Your task to perform on an android device: open a bookmark in the chrome app Image 0: 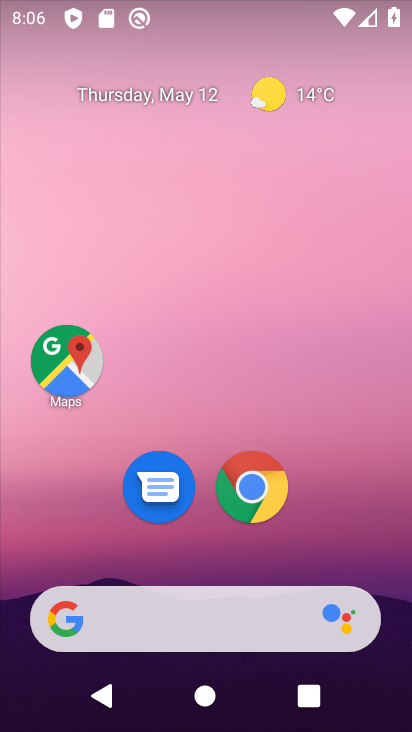
Step 0: click (260, 496)
Your task to perform on an android device: open a bookmark in the chrome app Image 1: 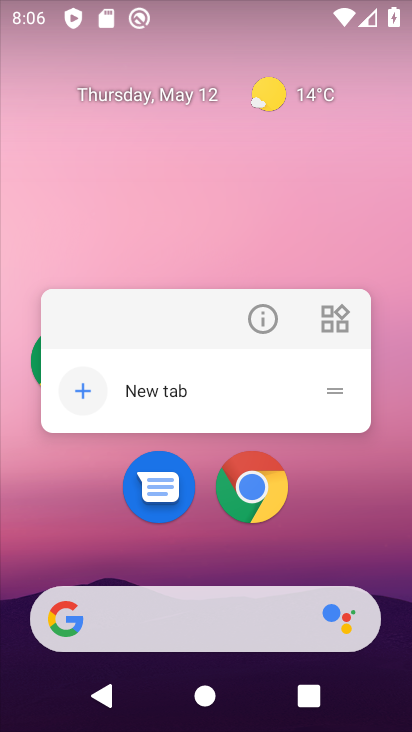
Step 1: click (257, 491)
Your task to perform on an android device: open a bookmark in the chrome app Image 2: 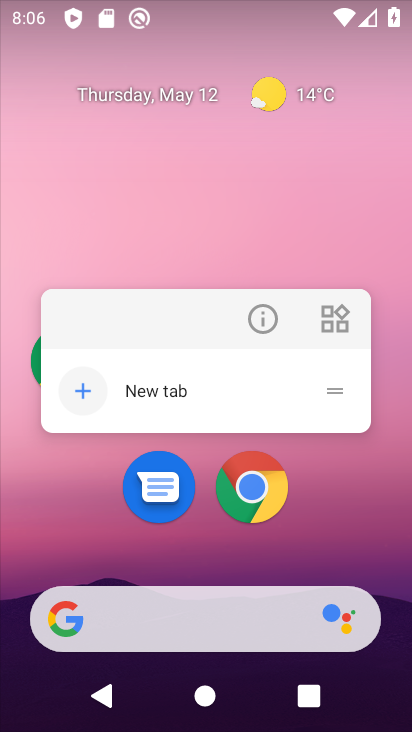
Step 2: click (378, 549)
Your task to perform on an android device: open a bookmark in the chrome app Image 3: 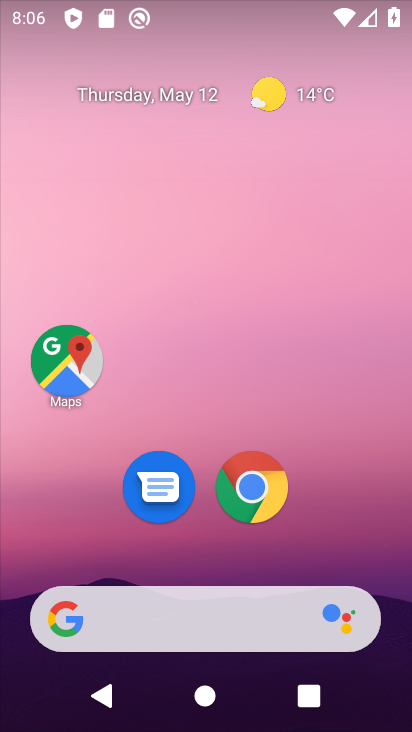
Step 3: click (255, 486)
Your task to perform on an android device: open a bookmark in the chrome app Image 4: 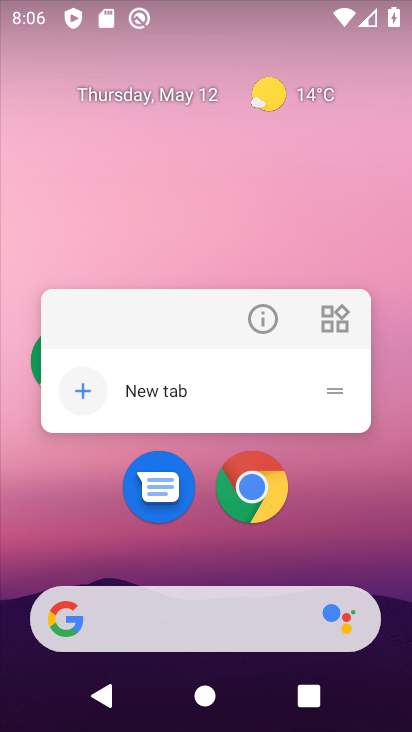
Step 4: click (254, 487)
Your task to perform on an android device: open a bookmark in the chrome app Image 5: 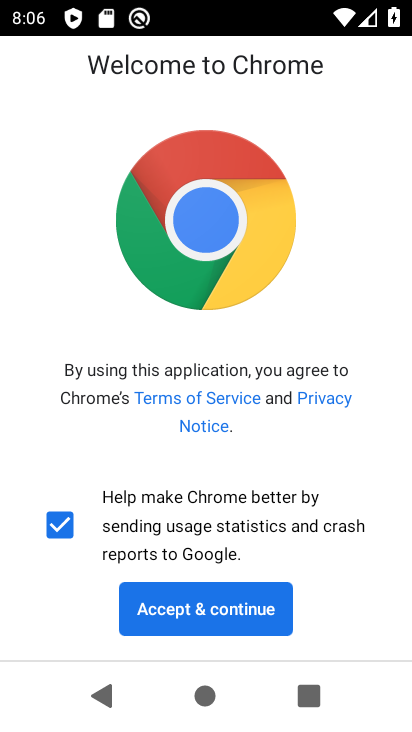
Step 5: click (164, 617)
Your task to perform on an android device: open a bookmark in the chrome app Image 6: 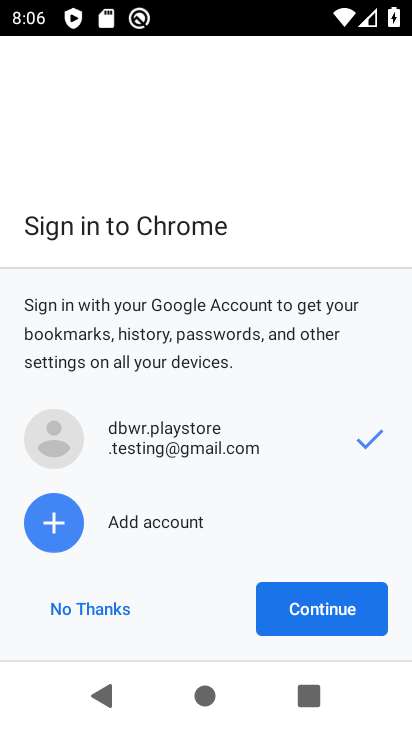
Step 6: click (81, 589)
Your task to perform on an android device: open a bookmark in the chrome app Image 7: 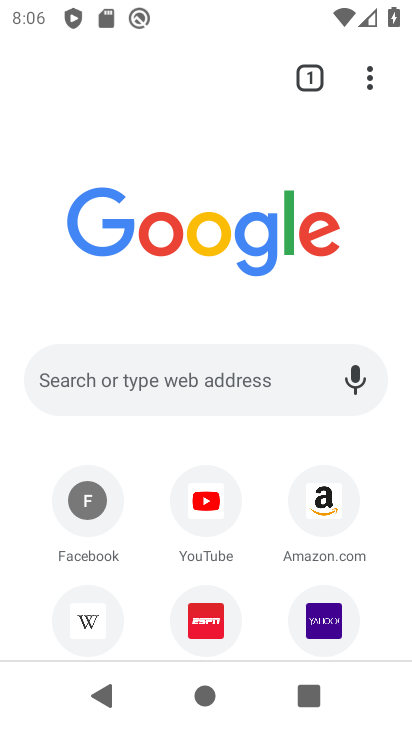
Step 7: click (370, 79)
Your task to perform on an android device: open a bookmark in the chrome app Image 8: 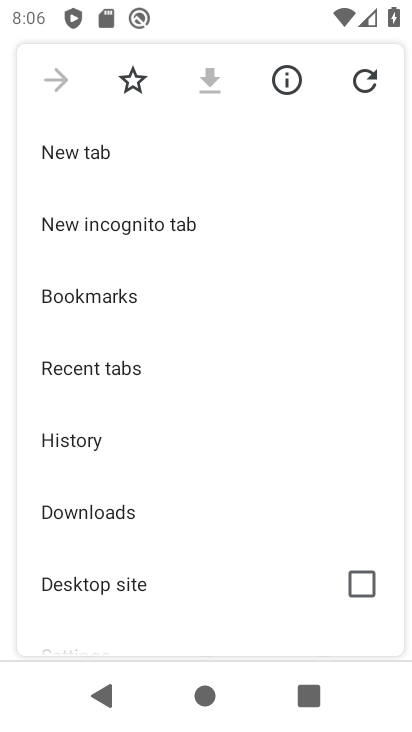
Step 8: click (69, 300)
Your task to perform on an android device: open a bookmark in the chrome app Image 9: 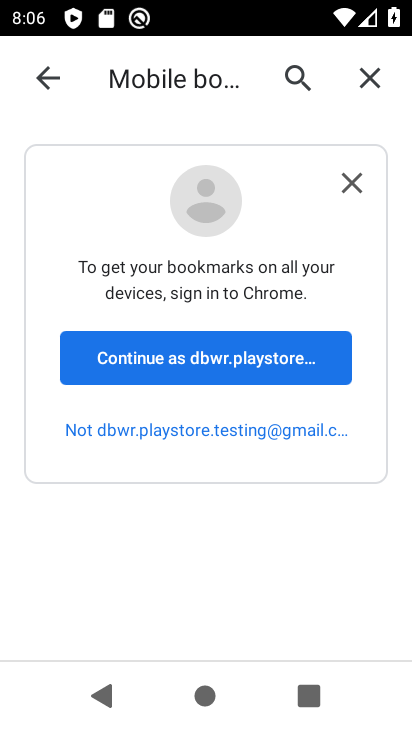
Step 9: click (185, 363)
Your task to perform on an android device: open a bookmark in the chrome app Image 10: 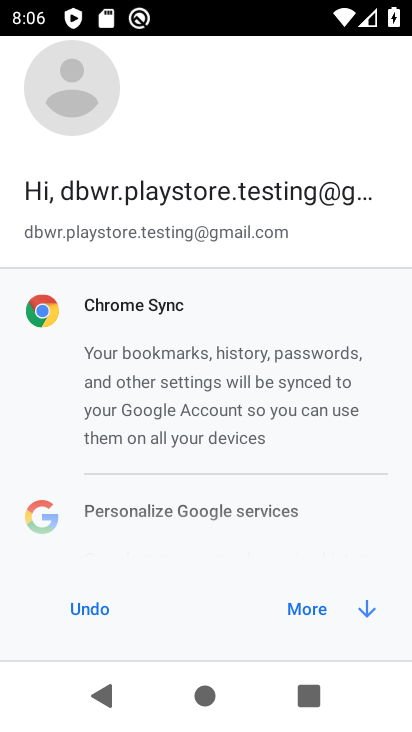
Step 10: click (328, 615)
Your task to perform on an android device: open a bookmark in the chrome app Image 11: 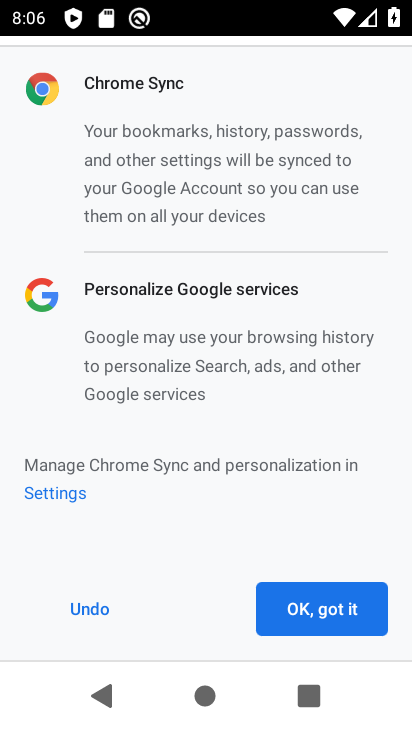
Step 11: click (328, 615)
Your task to perform on an android device: open a bookmark in the chrome app Image 12: 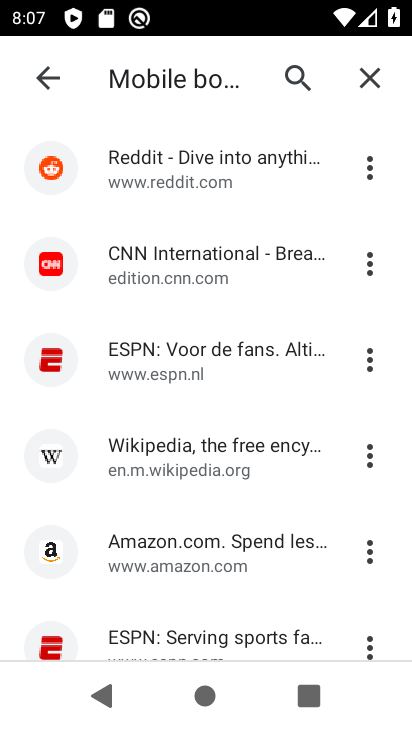
Step 12: click (161, 376)
Your task to perform on an android device: open a bookmark in the chrome app Image 13: 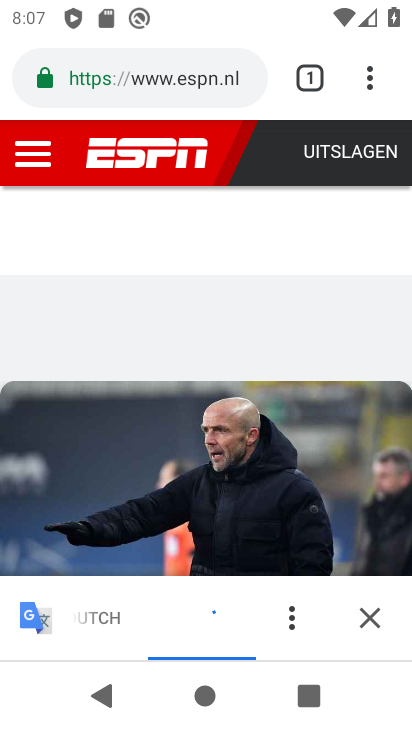
Step 13: task complete